Your task to perform on an android device: turn notification dots on Image 0: 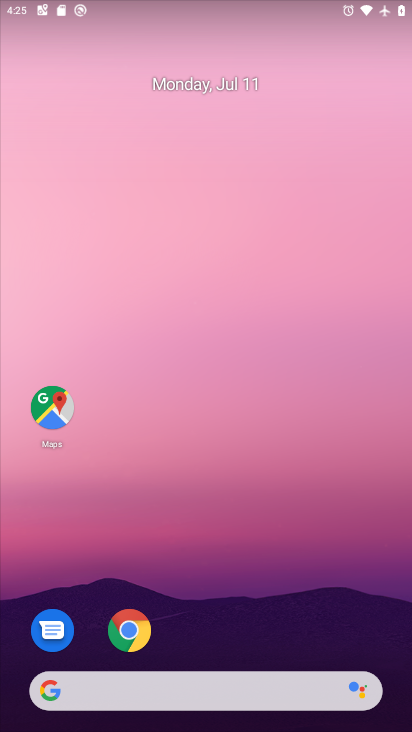
Step 0: drag from (321, 641) to (270, 110)
Your task to perform on an android device: turn notification dots on Image 1: 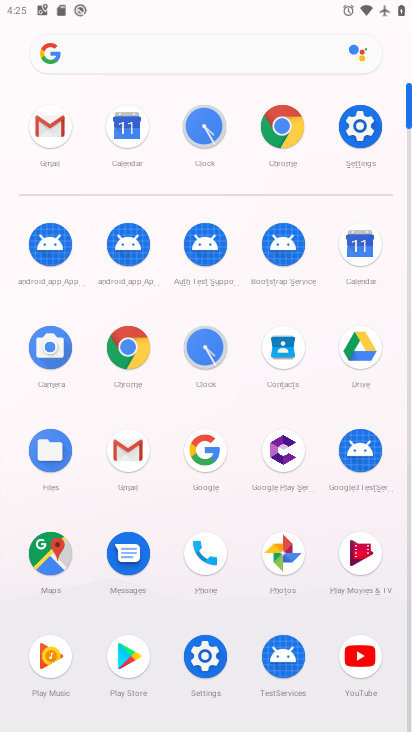
Step 1: click (371, 148)
Your task to perform on an android device: turn notification dots on Image 2: 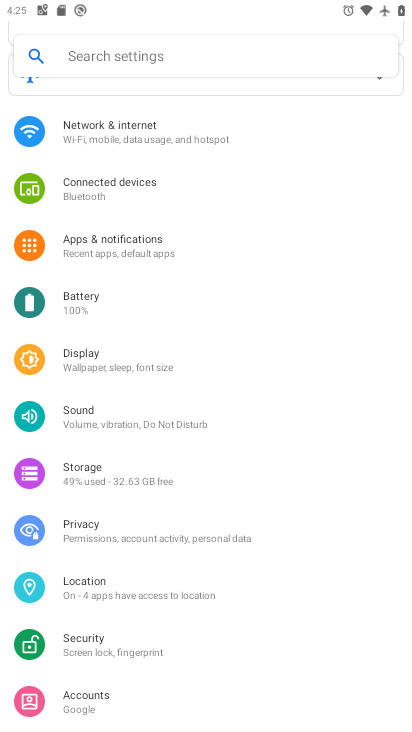
Step 2: click (156, 261)
Your task to perform on an android device: turn notification dots on Image 3: 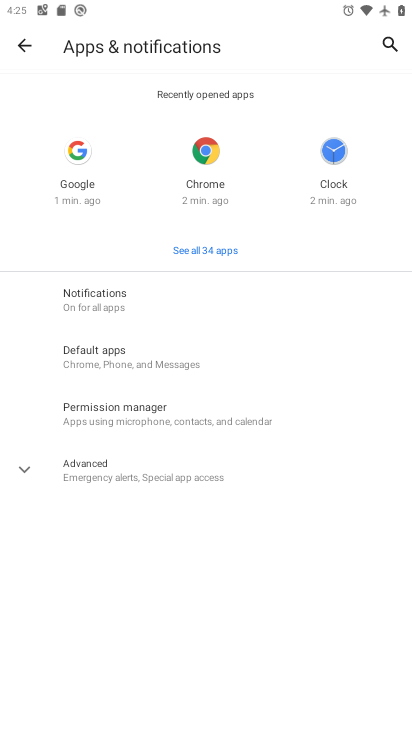
Step 3: click (155, 461)
Your task to perform on an android device: turn notification dots on Image 4: 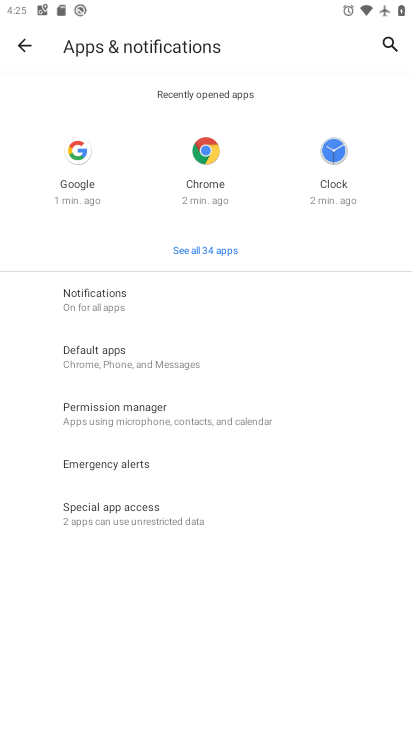
Step 4: click (130, 320)
Your task to perform on an android device: turn notification dots on Image 5: 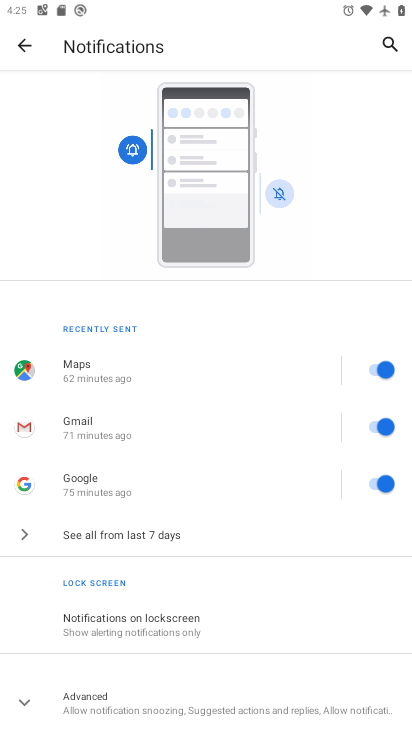
Step 5: click (268, 679)
Your task to perform on an android device: turn notification dots on Image 6: 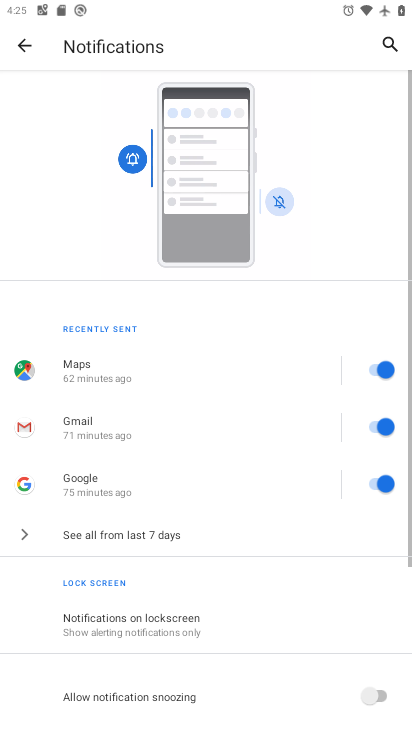
Step 6: drag from (305, 647) to (298, 404)
Your task to perform on an android device: turn notification dots on Image 7: 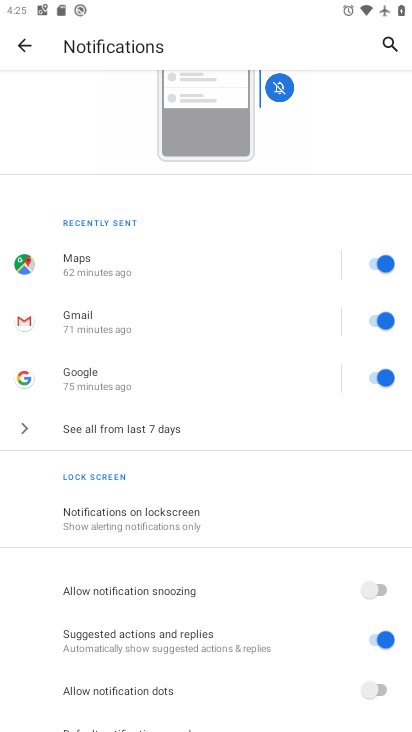
Step 7: drag from (314, 654) to (292, 220)
Your task to perform on an android device: turn notification dots on Image 8: 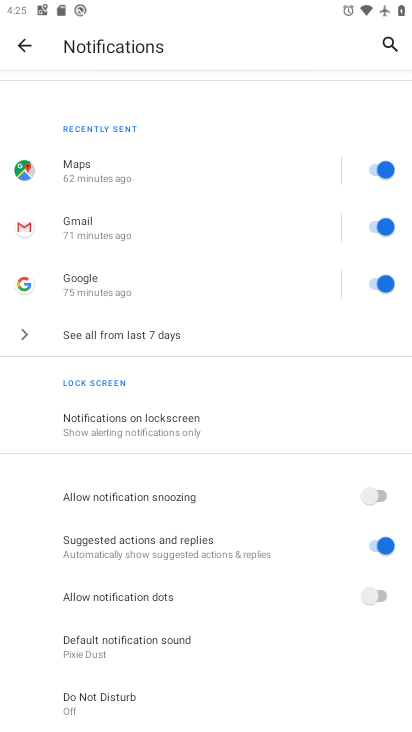
Step 8: click (360, 558)
Your task to perform on an android device: turn notification dots on Image 9: 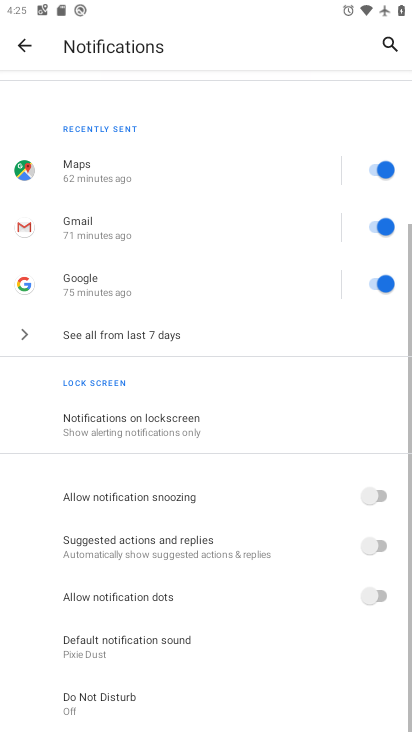
Step 9: click (374, 589)
Your task to perform on an android device: turn notification dots on Image 10: 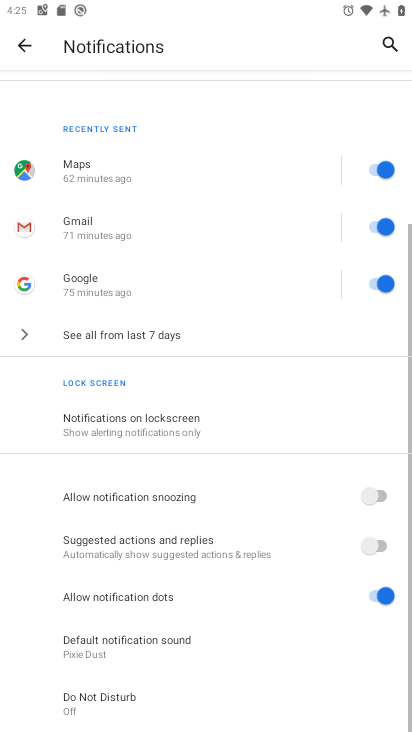
Step 10: task complete